Your task to perform on an android device: Go to Wikipedia Image 0: 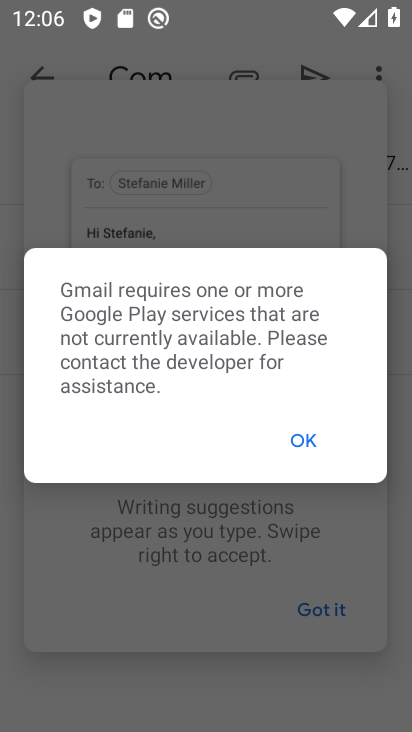
Step 0: press home button
Your task to perform on an android device: Go to Wikipedia Image 1: 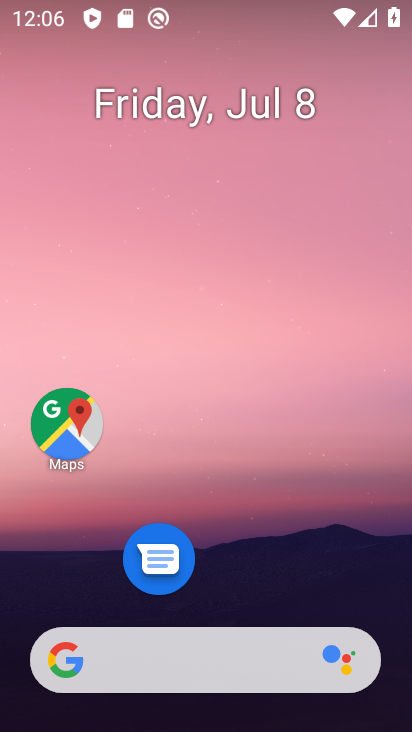
Step 1: drag from (253, 508) to (254, 50)
Your task to perform on an android device: Go to Wikipedia Image 2: 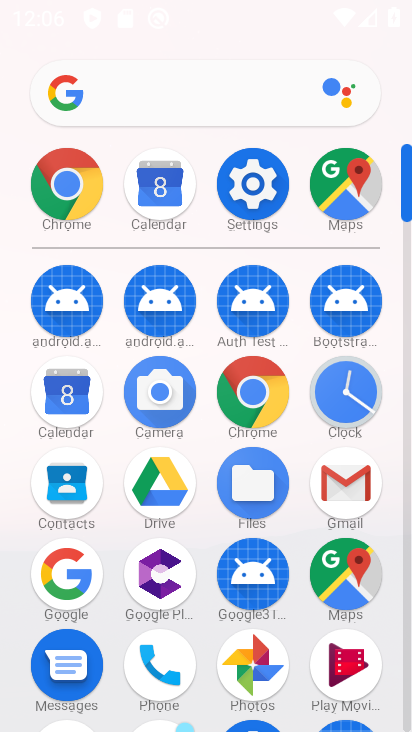
Step 2: click (97, 191)
Your task to perform on an android device: Go to Wikipedia Image 3: 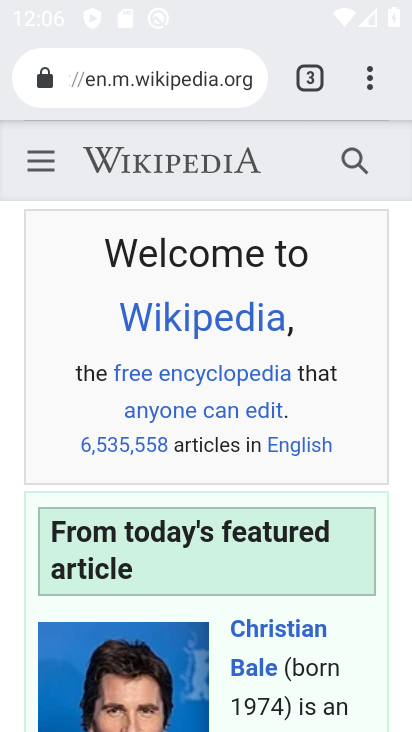
Step 3: task complete